Your task to perform on an android device: check google app version Image 0: 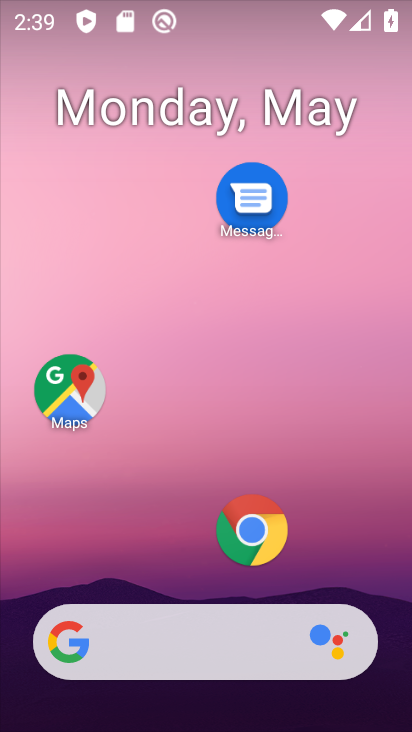
Step 0: drag from (137, 542) to (210, 69)
Your task to perform on an android device: check google app version Image 1: 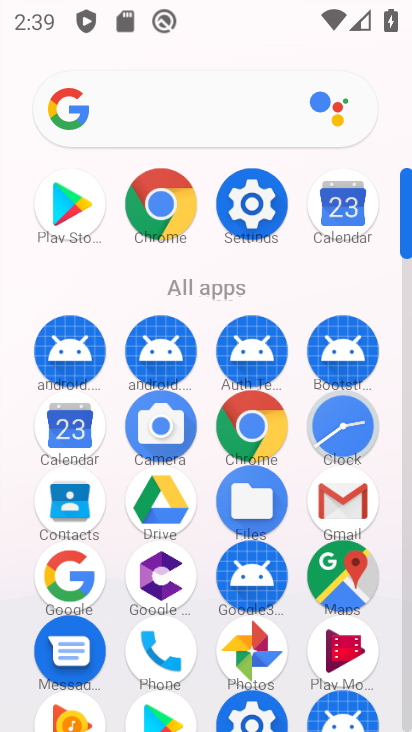
Step 1: click (67, 578)
Your task to perform on an android device: check google app version Image 2: 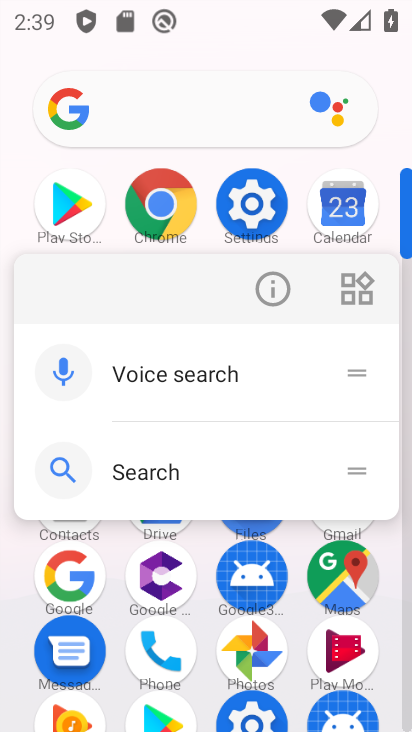
Step 2: click (277, 286)
Your task to perform on an android device: check google app version Image 3: 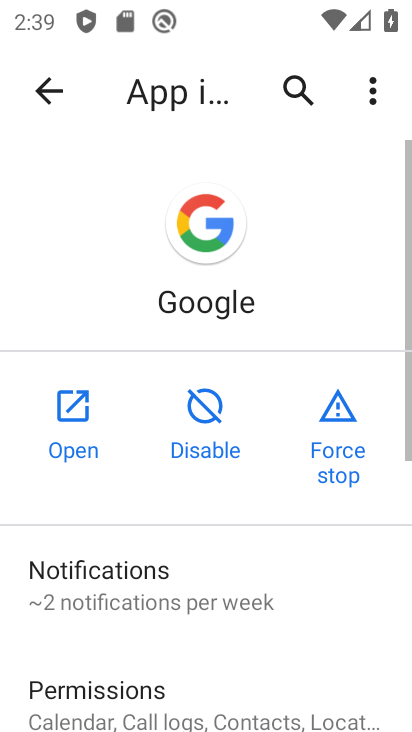
Step 3: drag from (152, 696) to (234, 133)
Your task to perform on an android device: check google app version Image 4: 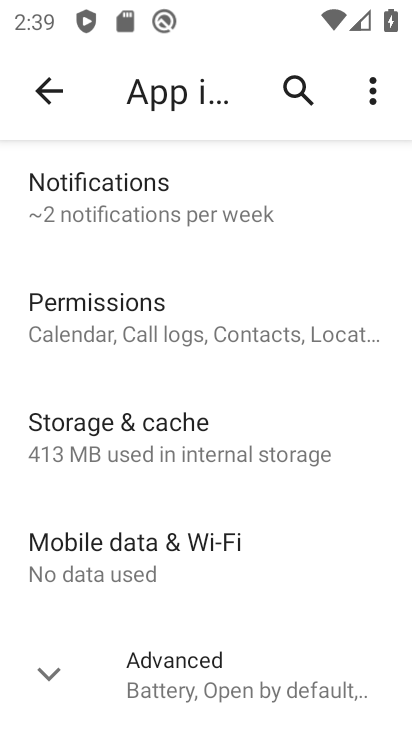
Step 4: drag from (190, 673) to (326, 62)
Your task to perform on an android device: check google app version Image 5: 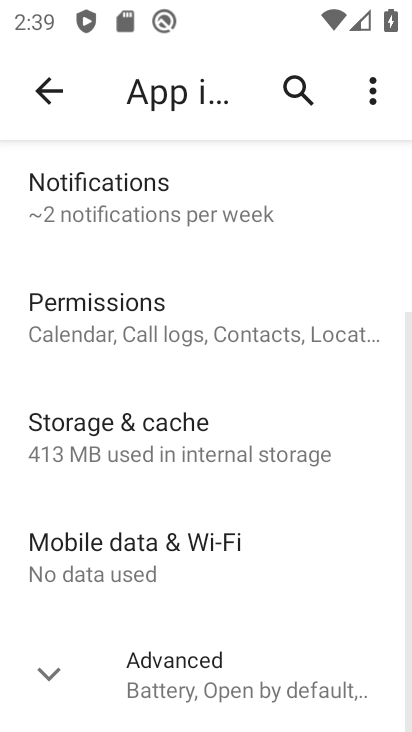
Step 5: click (171, 701)
Your task to perform on an android device: check google app version Image 6: 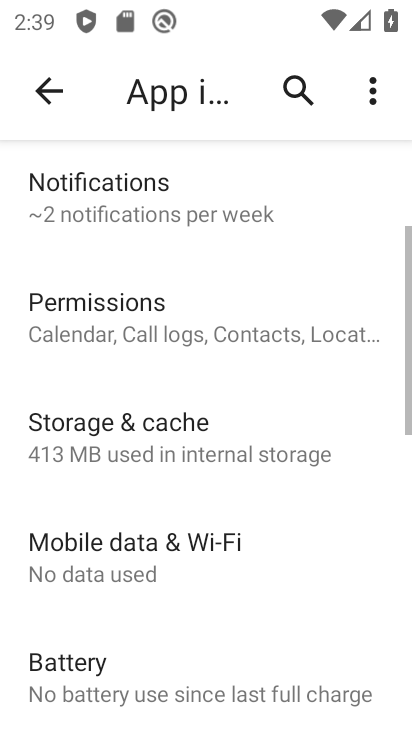
Step 6: task complete